Your task to perform on an android device: turn off priority inbox in the gmail app Image 0: 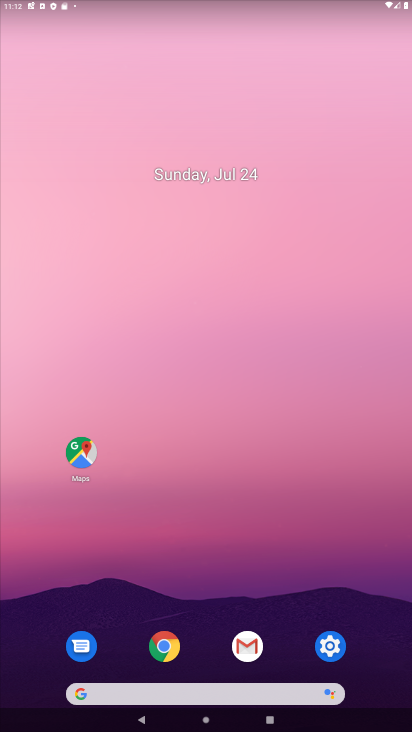
Step 0: click (254, 641)
Your task to perform on an android device: turn off priority inbox in the gmail app Image 1: 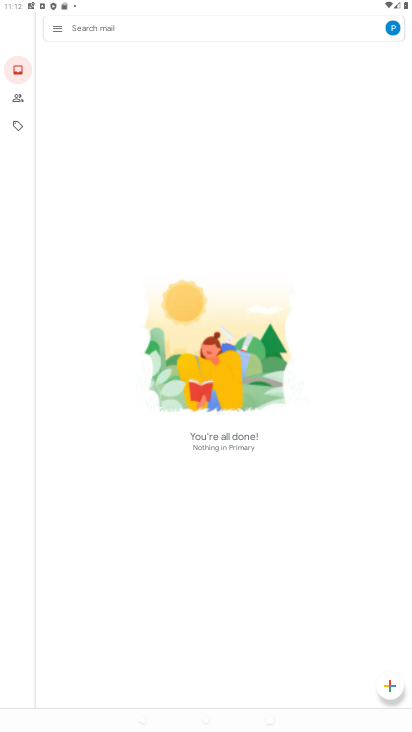
Step 1: click (54, 33)
Your task to perform on an android device: turn off priority inbox in the gmail app Image 2: 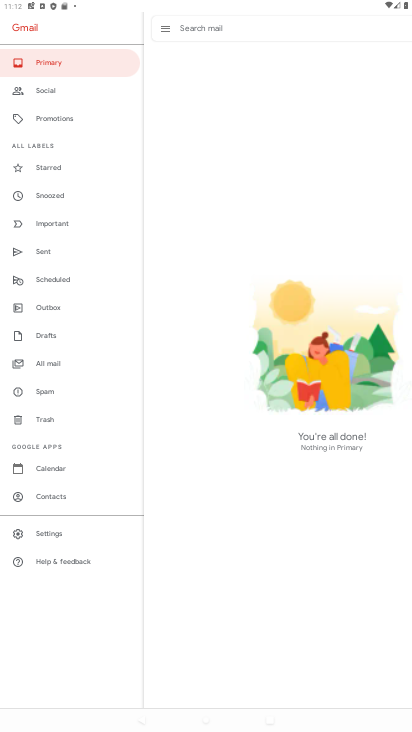
Step 2: click (43, 529)
Your task to perform on an android device: turn off priority inbox in the gmail app Image 3: 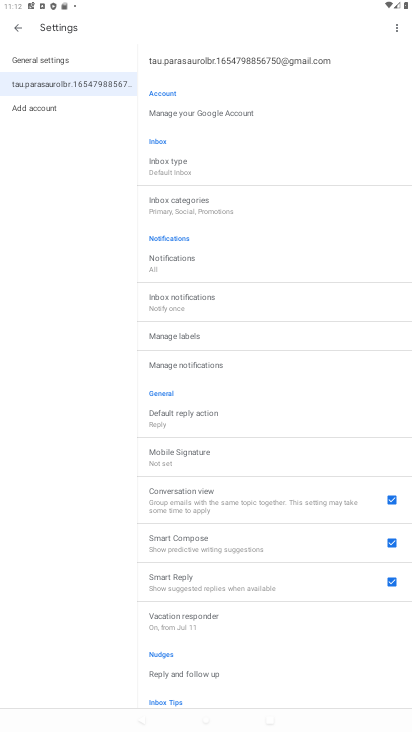
Step 3: click (176, 170)
Your task to perform on an android device: turn off priority inbox in the gmail app Image 4: 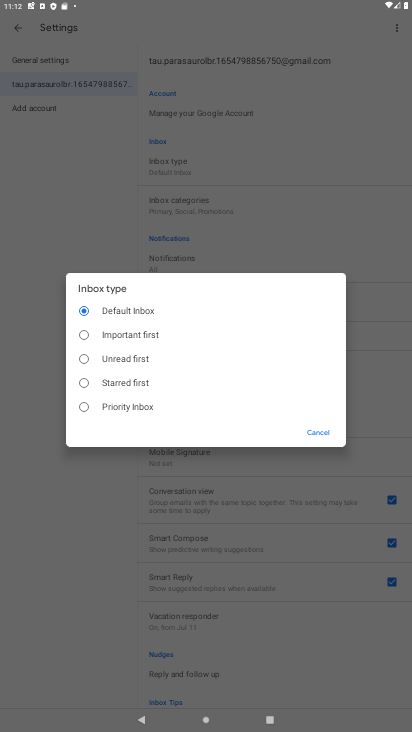
Step 4: click (119, 407)
Your task to perform on an android device: turn off priority inbox in the gmail app Image 5: 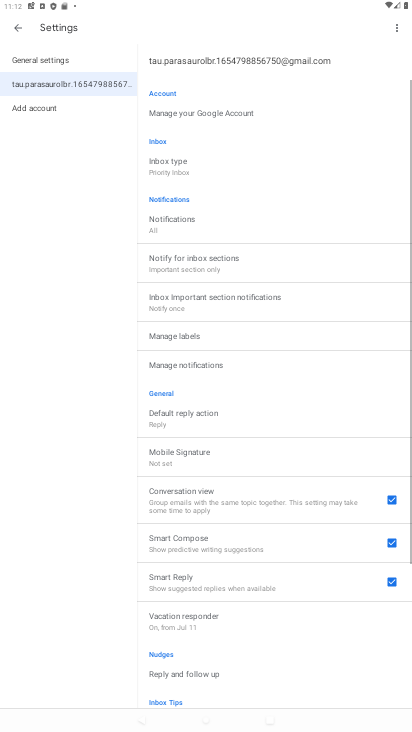
Step 5: click (183, 163)
Your task to perform on an android device: turn off priority inbox in the gmail app Image 6: 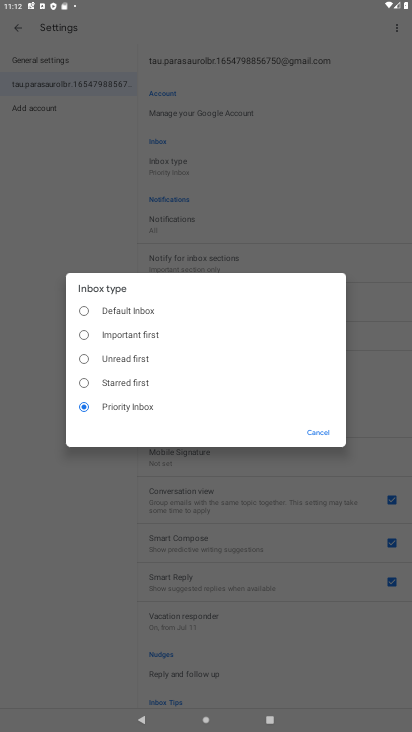
Step 6: click (117, 306)
Your task to perform on an android device: turn off priority inbox in the gmail app Image 7: 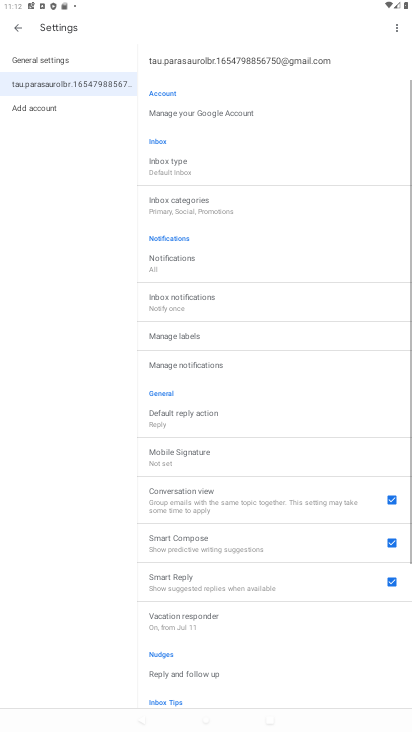
Step 7: click (175, 165)
Your task to perform on an android device: turn off priority inbox in the gmail app Image 8: 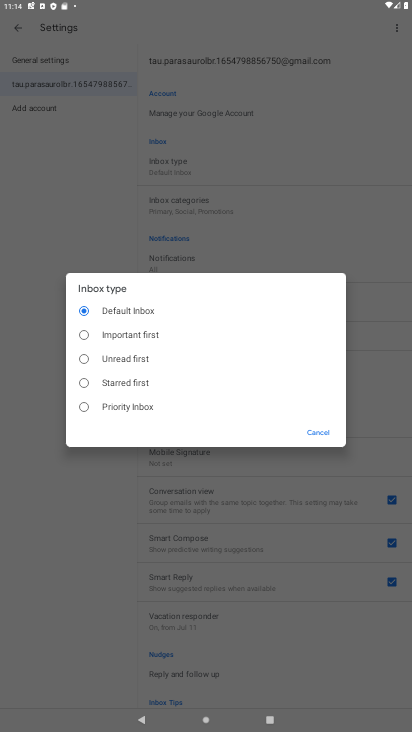
Step 8: task complete